Your task to perform on an android device: manage bookmarks in the chrome app Image 0: 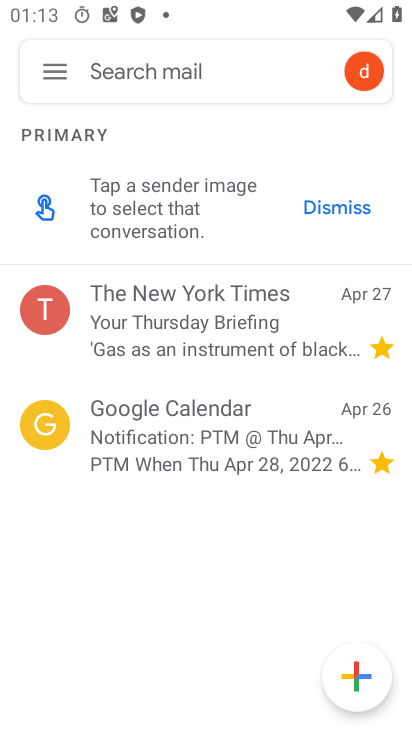
Step 0: press home button
Your task to perform on an android device: manage bookmarks in the chrome app Image 1: 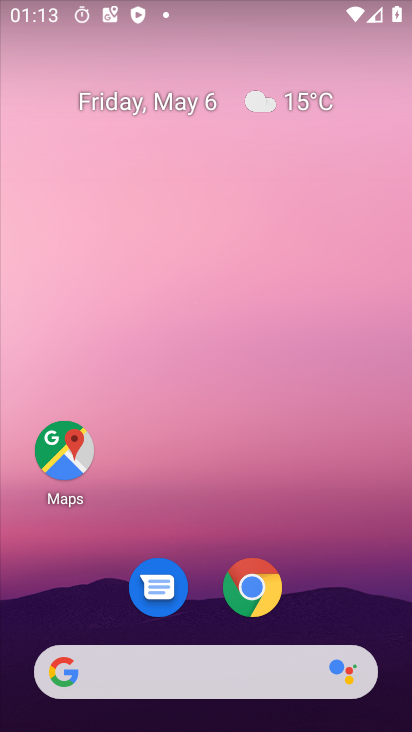
Step 1: drag from (387, 575) to (362, 260)
Your task to perform on an android device: manage bookmarks in the chrome app Image 2: 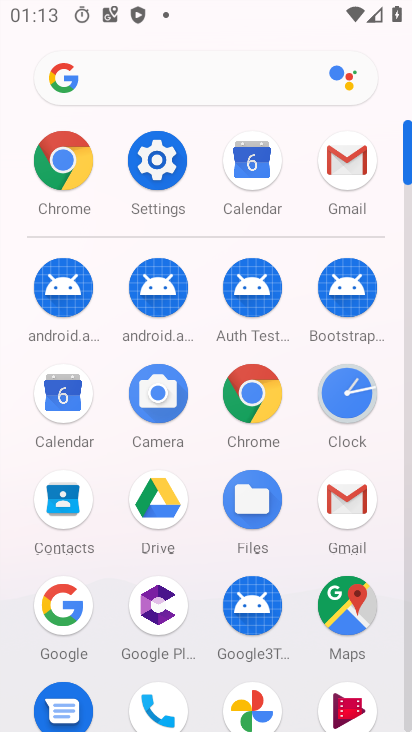
Step 2: click (253, 404)
Your task to perform on an android device: manage bookmarks in the chrome app Image 3: 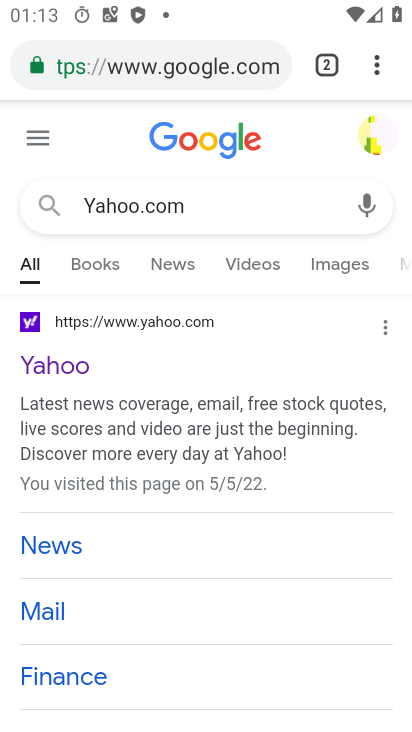
Step 3: click (377, 64)
Your task to perform on an android device: manage bookmarks in the chrome app Image 4: 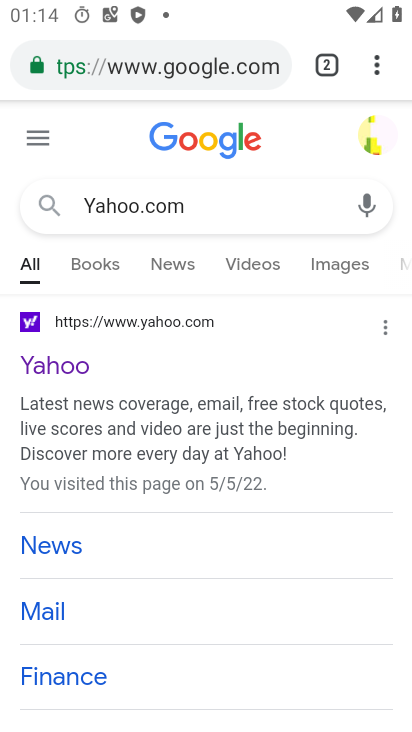
Step 4: click (372, 68)
Your task to perform on an android device: manage bookmarks in the chrome app Image 5: 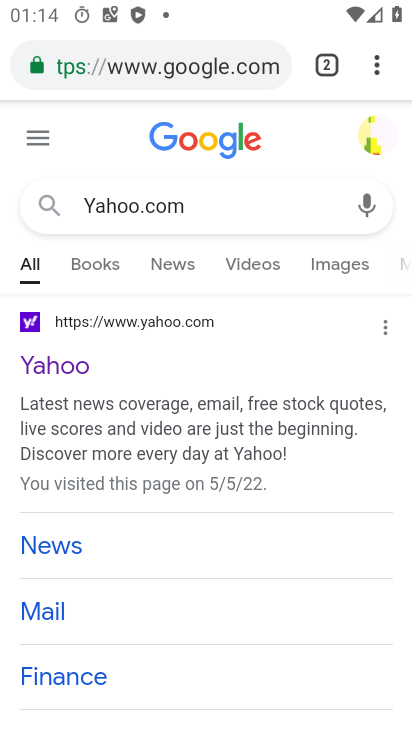
Step 5: click (373, 63)
Your task to perform on an android device: manage bookmarks in the chrome app Image 6: 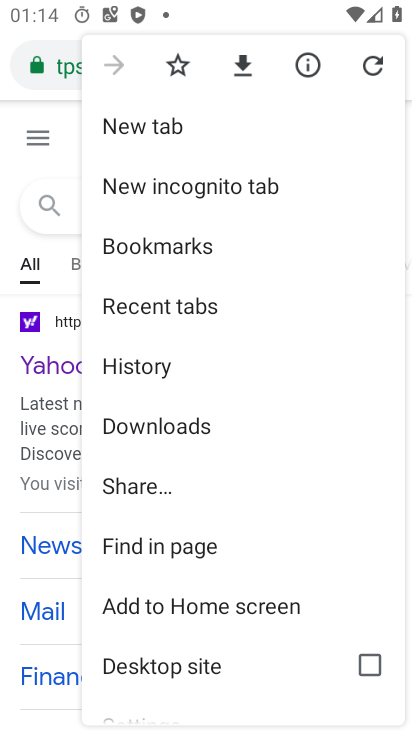
Step 6: click (154, 245)
Your task to perform on an android device: manage bookmarks in the chrome app Image 7: 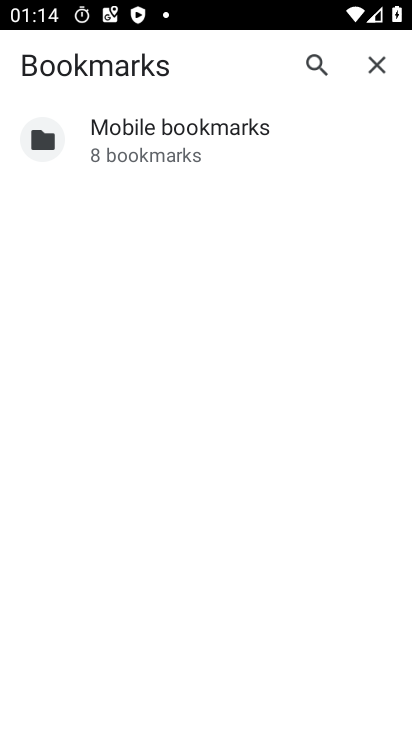
Step 7: click (135, 126)
Your task to perform on an android device: manage bookmarks in the chrome app Image 8: 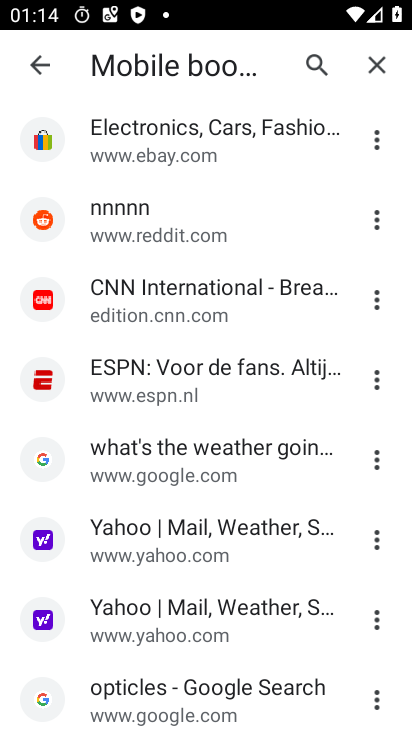
Step 8: click (371, 457)
Your task to perform on an android device: manage bookmarks in the chrome app Image 9: 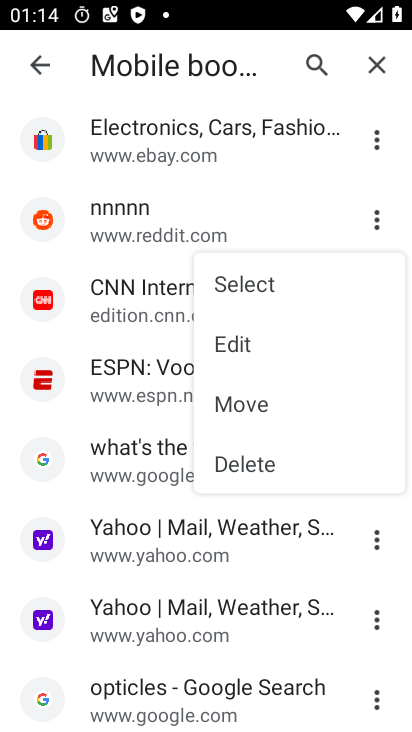
Step 9: click (241, 459)
Your task to perform on an android device: manage bookmarks in the chrome app Image 10: 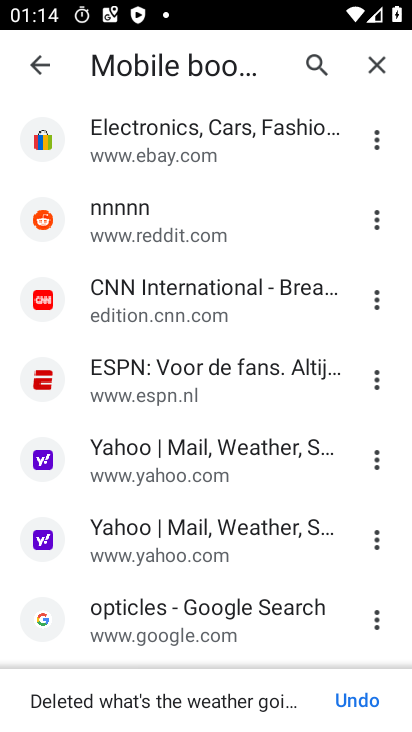
Step 10: task complete